Your task to perform on an android device: Go to Yahoo.com Image 0: 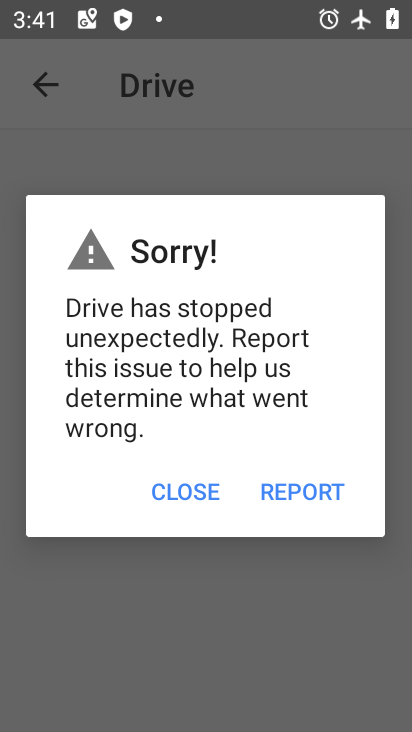
Step 0: press home button
Your task to perform on an android device: Go to Yahoo.com Image 1: 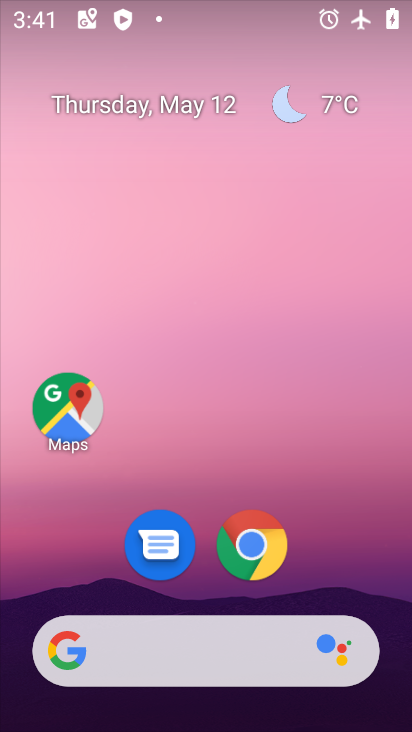
Step 1: click (253, 540)
Your task to perform on an android device: Go to Yahoo.com Image 2: 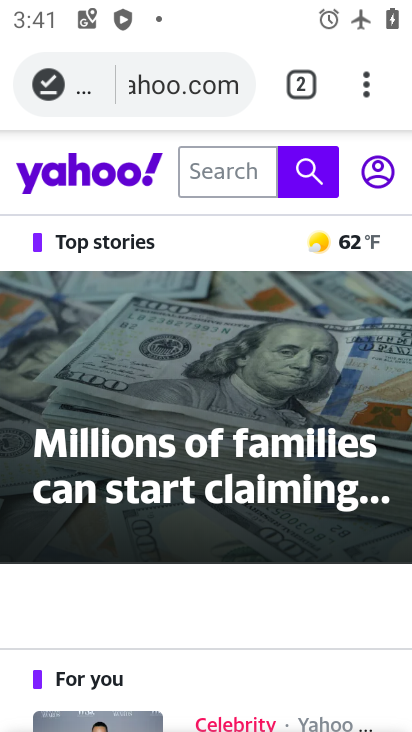
Step 2: task complete